Your task to perform on an android device: add a contact in the contacts app Image 0: 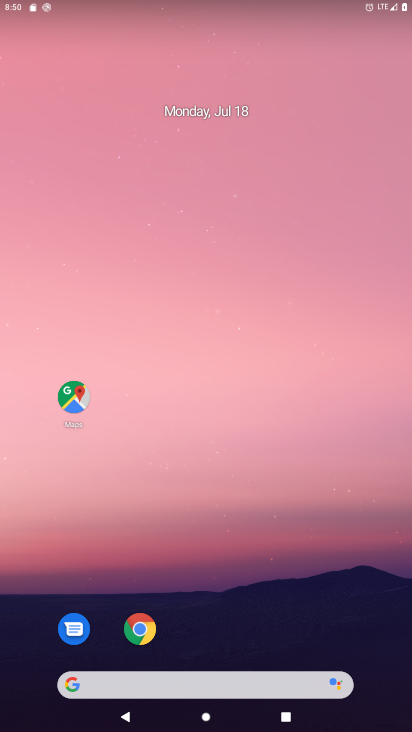
Step 0: drag from (253, 635) to (262, 13)
Your task to perform on an android device: add a contact in the contacts app Image 1: 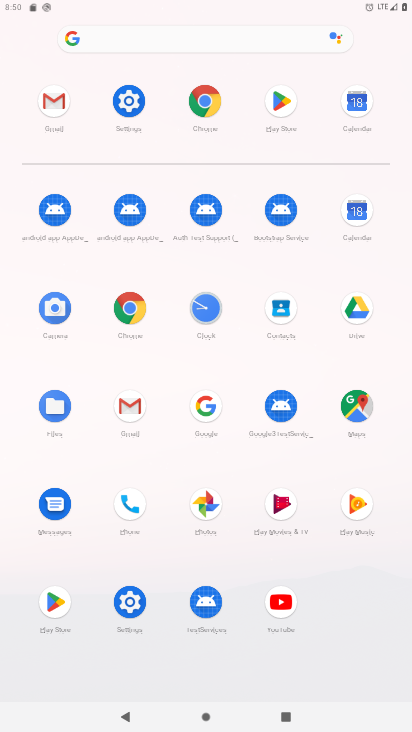
Step 1: click (282, 313)
Your task to perform on an android device: add a contact in the contacts app Image 2: 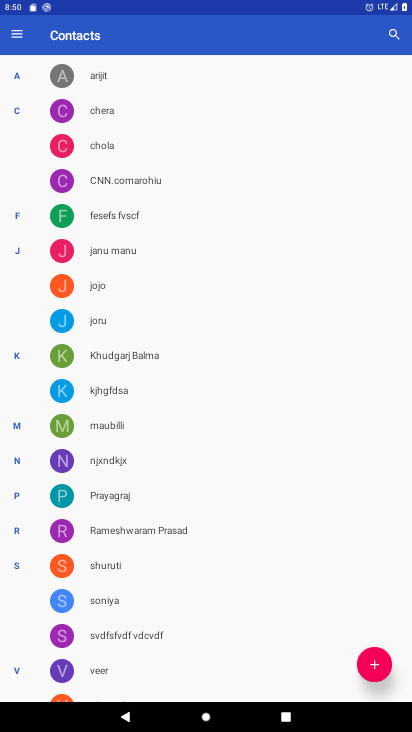
Step 2: click (376, 664)
Your task to perform on an android device: add a contact in the contacts app Image 3: 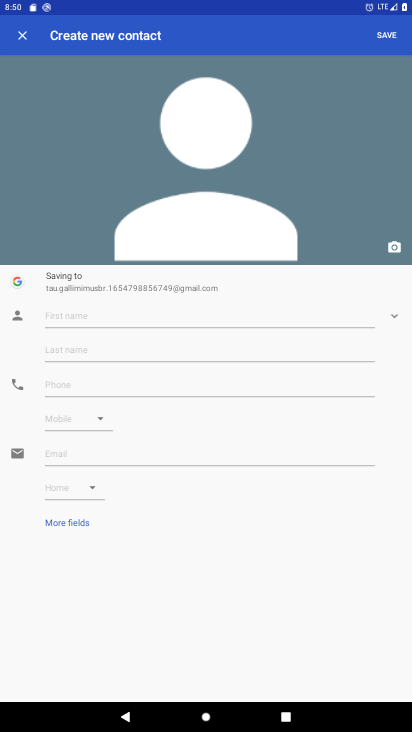
Step 3: click (255, 318)
Your task to perform on an android device: add a contact in the contacts app Image 4: 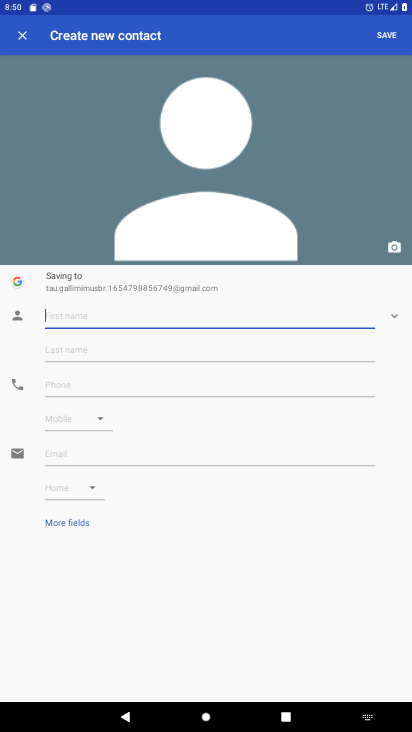
Step 4: type "swatch"
Your task to perform on an android device: add a contact in the contacts app Image 5: 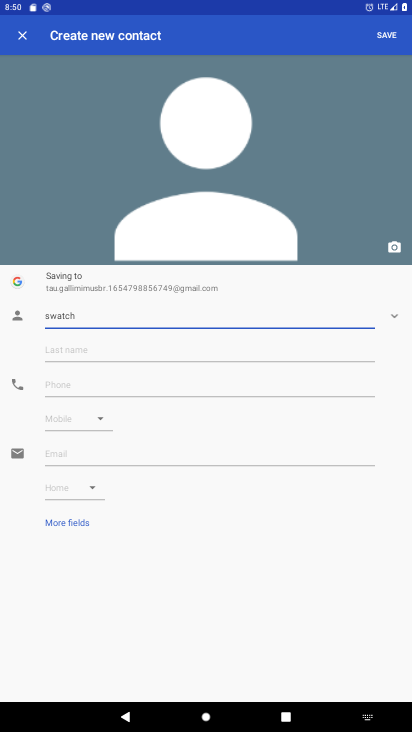
Step 5: click (388, 35)
Your task to perform on an android device: add a contact in the contacts app Image 6: 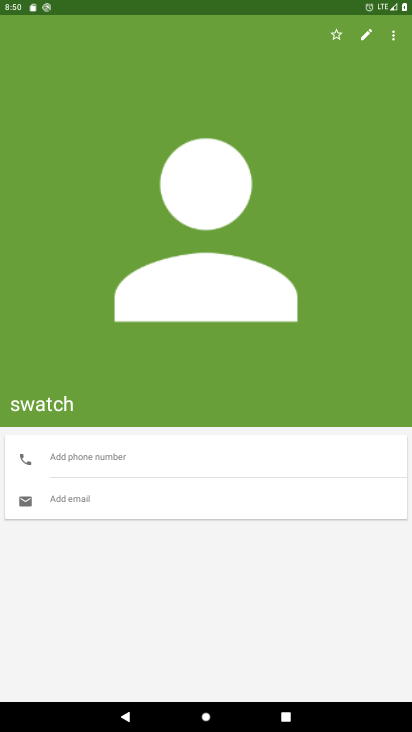
Step 6: task complete